Your task to perform on an android device: Go to eBay Image 0: 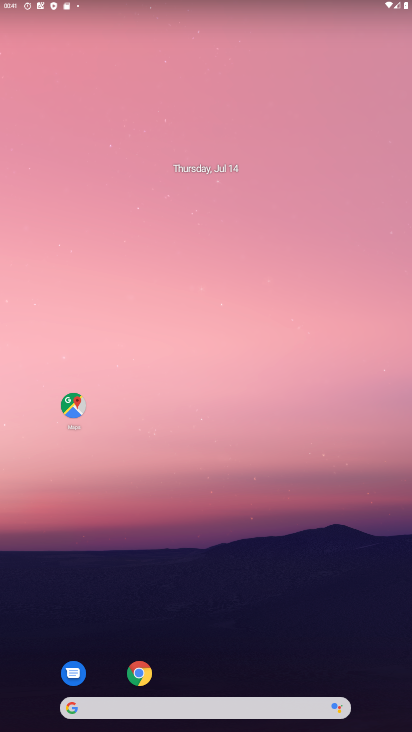
Step 0: click (138, 657)
Your task to perform on an android device: Go to eBay Image 1: 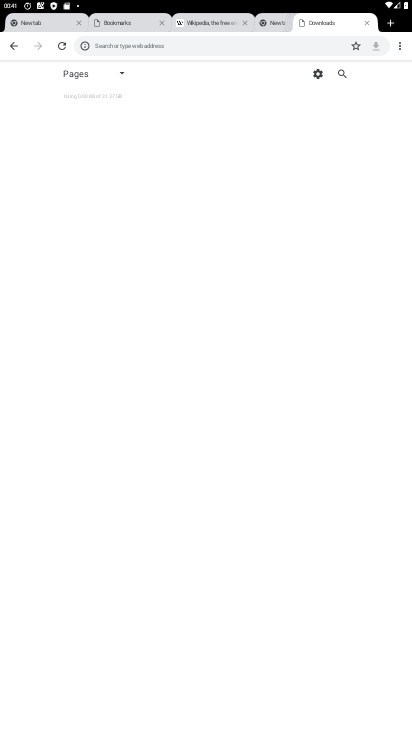
Step 1: click (388, 16)
Your task to perform on an android device: Go to eBay Image 2: 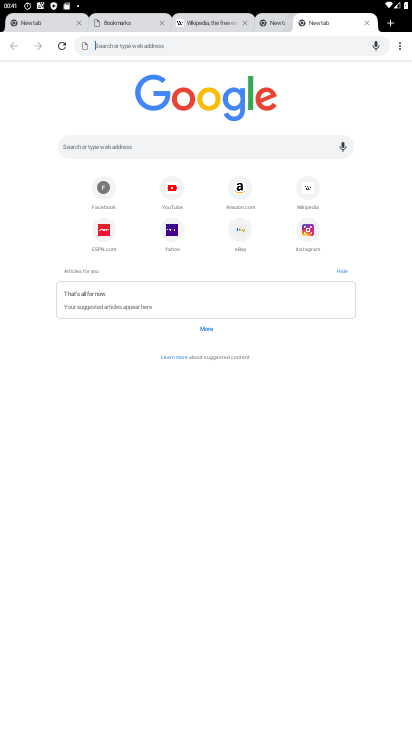
Step 2: click (236, 234)
Your task to perform on an android device: Go to eBay Image 3: 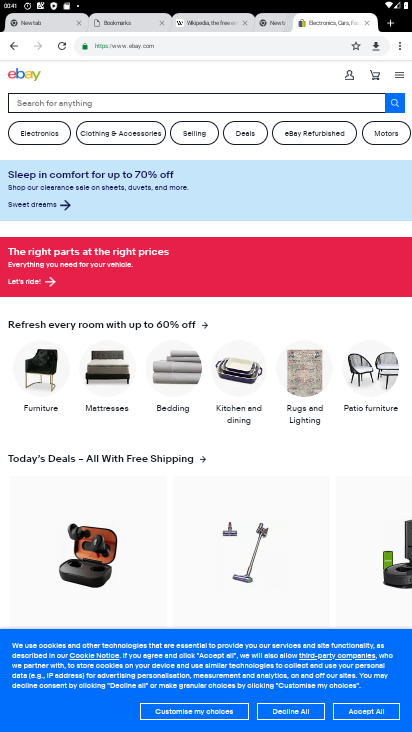
Step 3: task complete